Your task to perform on an android device: Open Android settings Image 0: 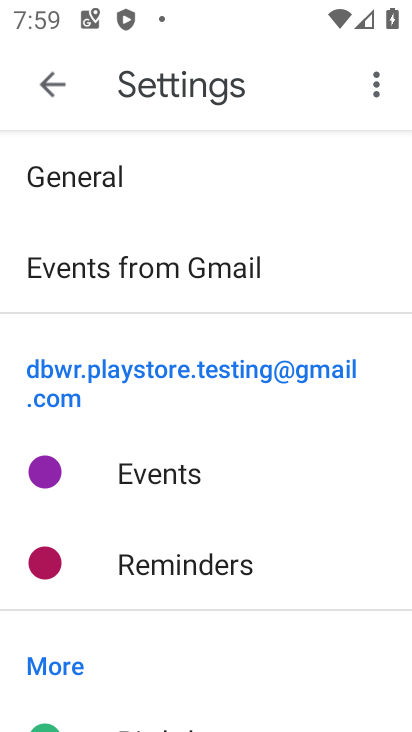
Step 0: press home button
Your task to perform on an android device: Open Android settings Image 1: 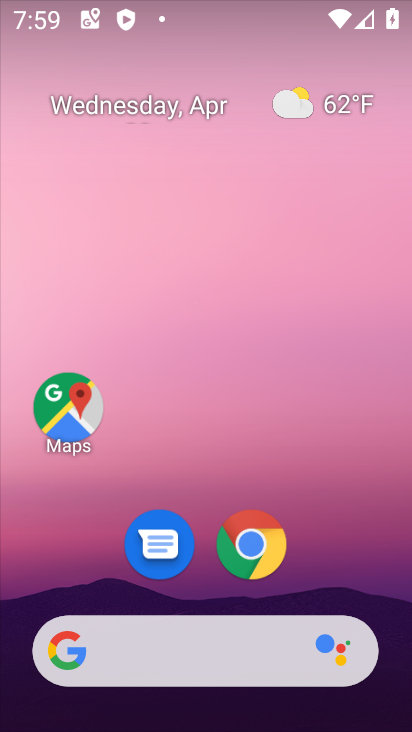
Step 1: drag from (335, 570) to (202, 135)
Your task to perform on an android device: Open Android settings Image 2: 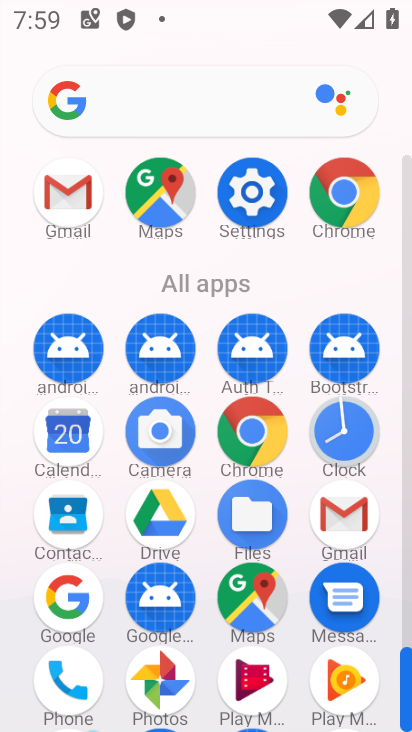
Step 2: click (252, 193)
Your task to perform on an android device: Open Android settings Image 3: 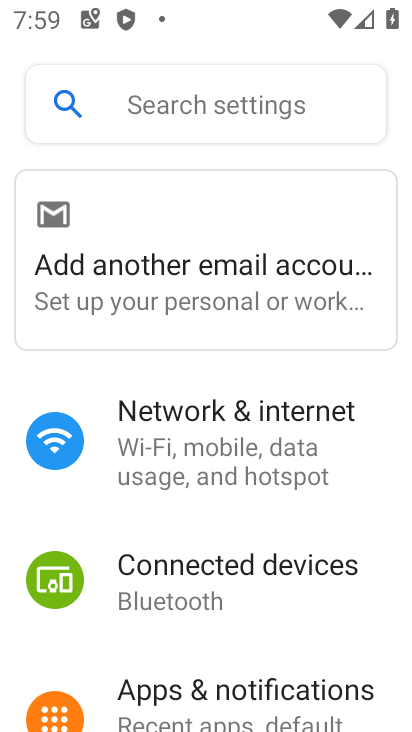
Step 3: drag from (202, 673) to (202, 210)
Your task to perform on an android device: Open Android settings Image 4: 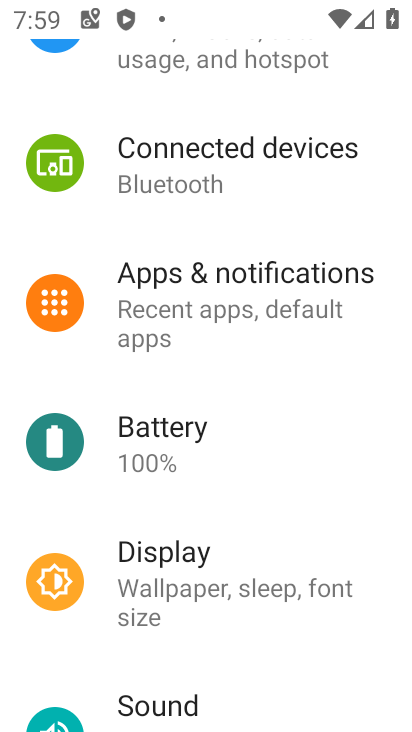
Step 4: drag from (285, 689) to (294, 101)
Your task to perform on an android device: Open Android settings Image 5: 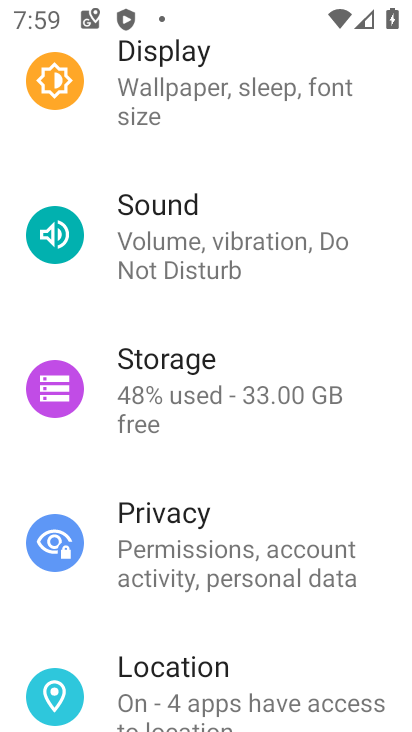
Step 5: drag from (340, 655) to (312, 154)
Your task to perform on an android device: Open Android settings Image 6: 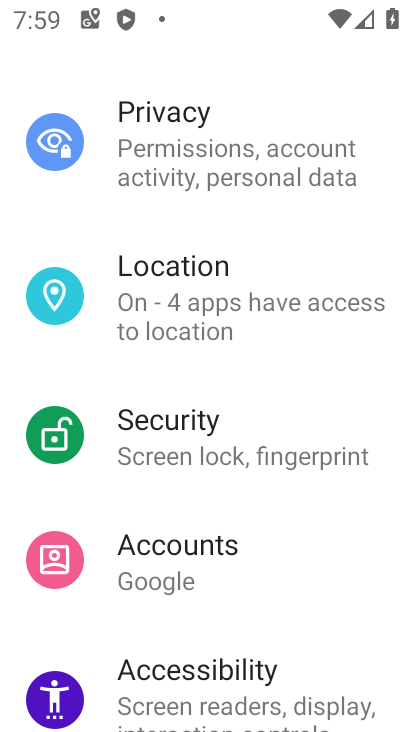
Step 6: drag from (331, 644) to (334, 141)
Your task to perform on an android device: Open Android settings Image 7: 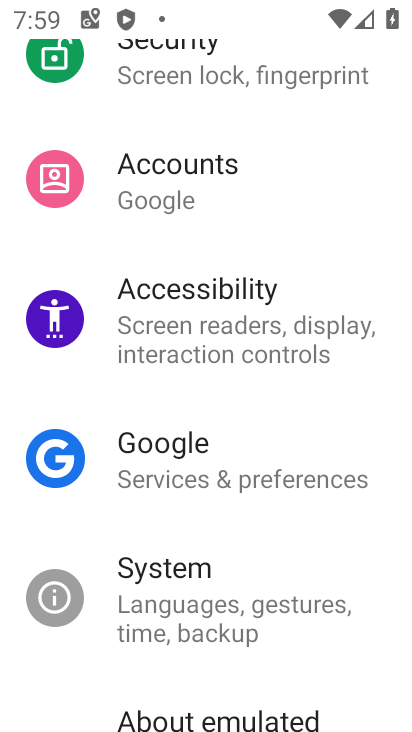
Step 7: drag from (314, 627) to (329, 200)
Your task to perform on an android device: Open Android settings Image 8: 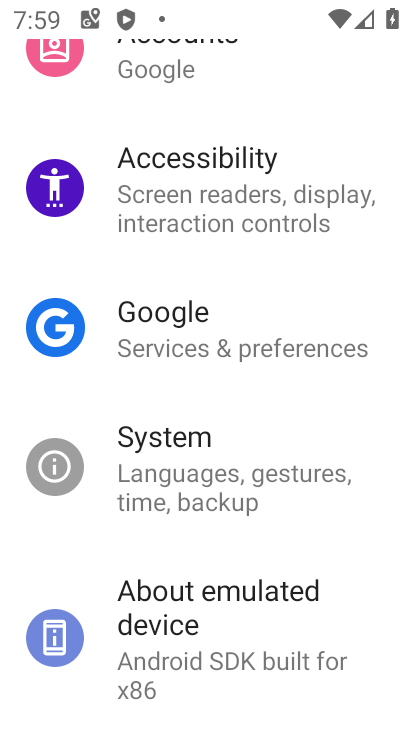
Step 8: click (157, 647)
Your task to perform on an android device: Open Android settings Image 9: 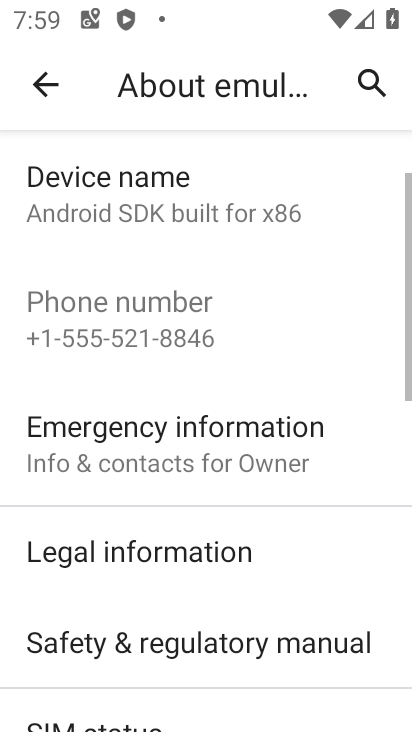
Step 9: drag from (226, 690) to (244, 268)
Your task to perform on an android device: Open Android settings Image 10: 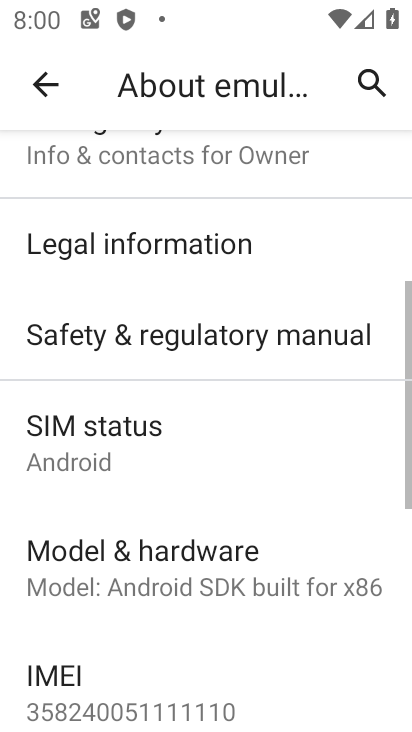
Step 10: drag from (256, 664) to (282, 436)
Your task to perform on an android device: Open Android settings Image 11: 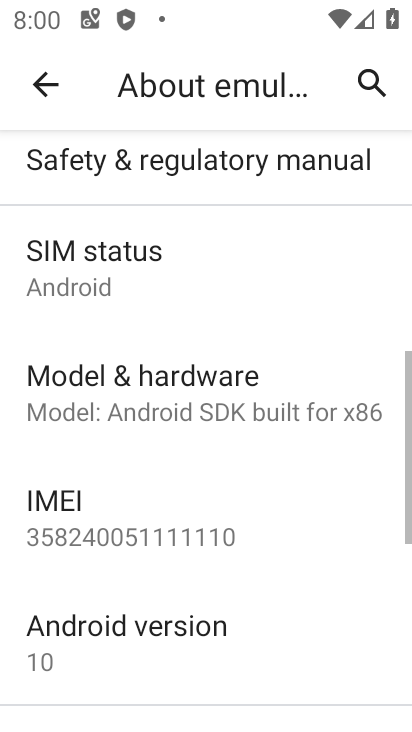
Step 11: drag from (166, 559) to (165, 349)
Your task to perform on an android device: Open Android settings Image 12: 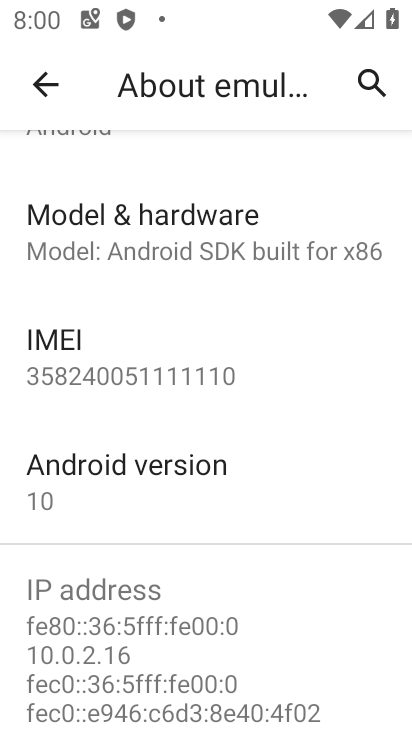
Step 12: click (126, 456)
Your task to perform on an android device: Open Android settings Image 13: 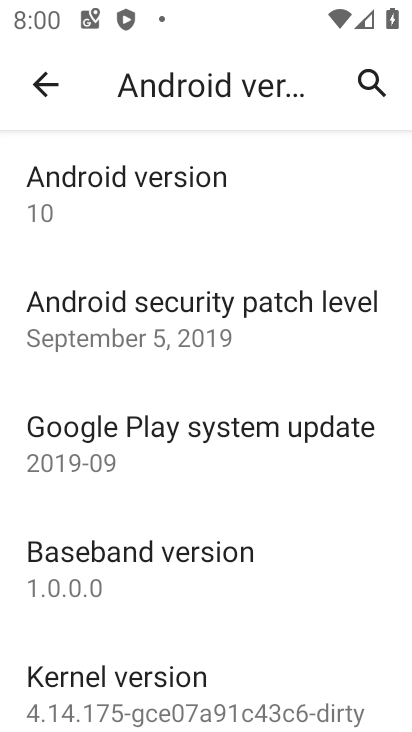
Step 13: task complete